Your task to perform on an android device: Open Youtube and go to "Your channel" Image 0: 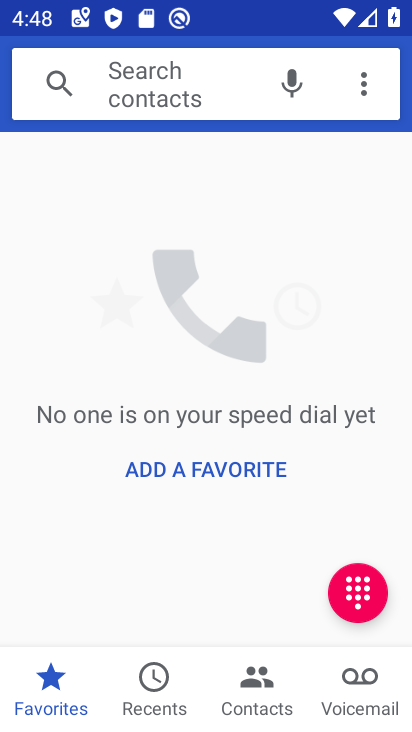
Step 0: press back button
Your task to perform on an android device: Open Youtube and go to "Your channel" Image 1: 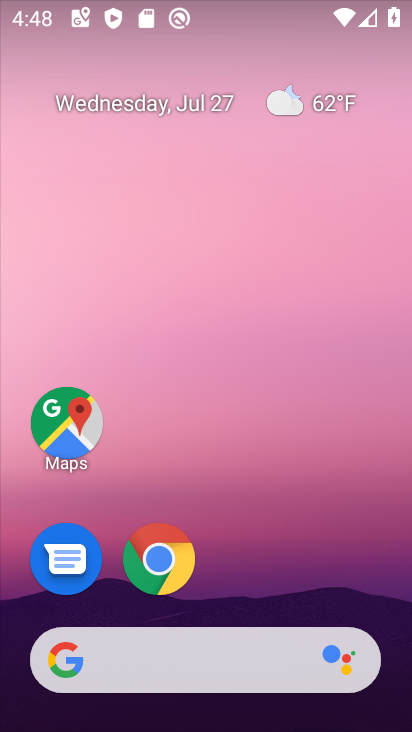
Step 1: drag from (228, 603) to (223, 23)
Your task to perform on an android device: Open Youtube and go to "Your channel" Image 2: 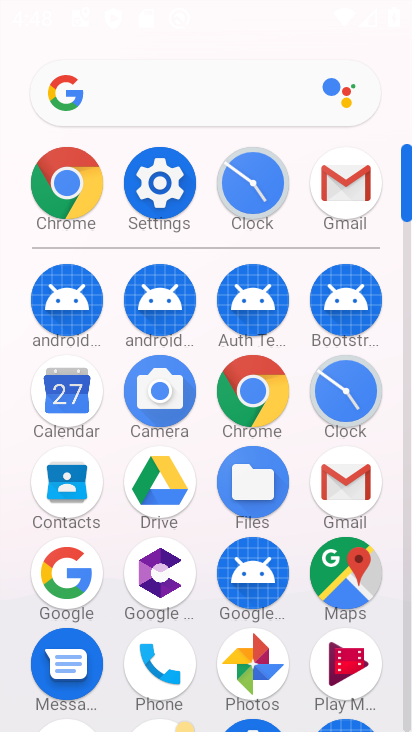
Step 2: drag from (160, 622) to (207, 90)
Your task to perform on an android device: Open Youtube and go to "Your channel" Image 3: 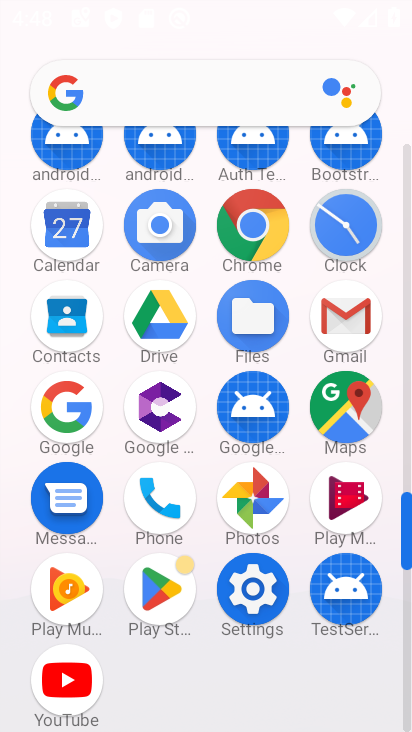
Step 3: click (54, 683)
Your task to perform on an android device: Open Youtube and go to "Your channel" Image 4: 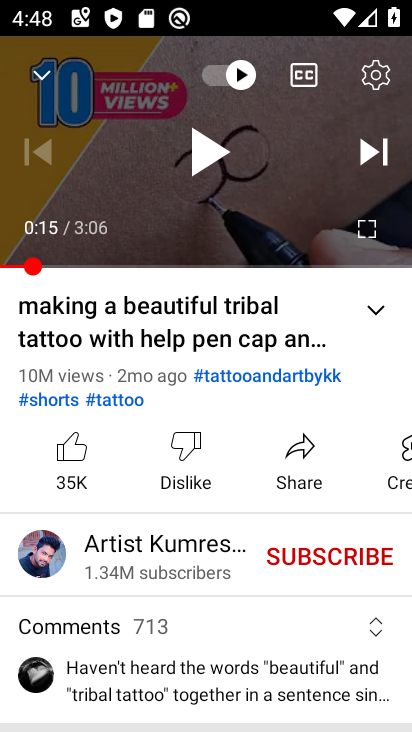
Step 4: click (37, 75)
Your task to perform on an android device: Open Youtube and go to "Your channel" Image 5: 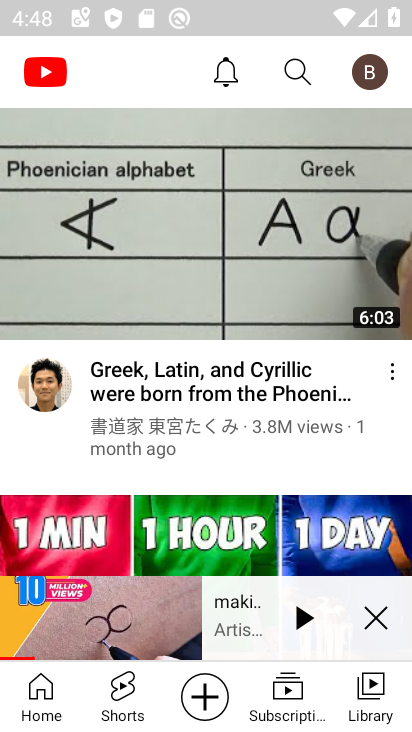
Step 5: click (366, 689)
Your task to perform on an android device: Open Youtube and go to "Your channel" Image 6: 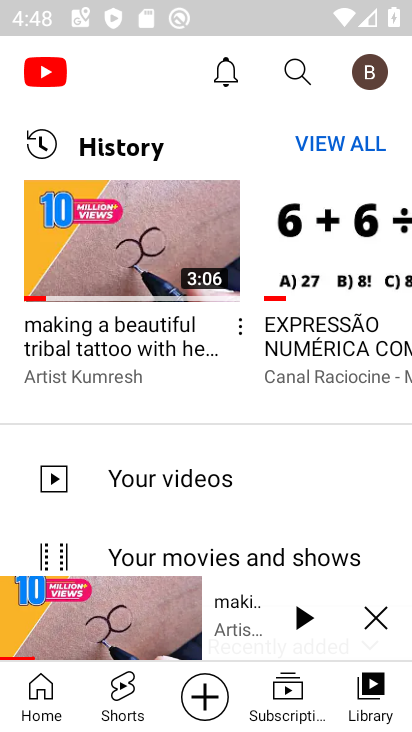
Step 6: click (367, 81)
Your task to perform on an android device: Open Youtube and go to "Your channel" Image 7: 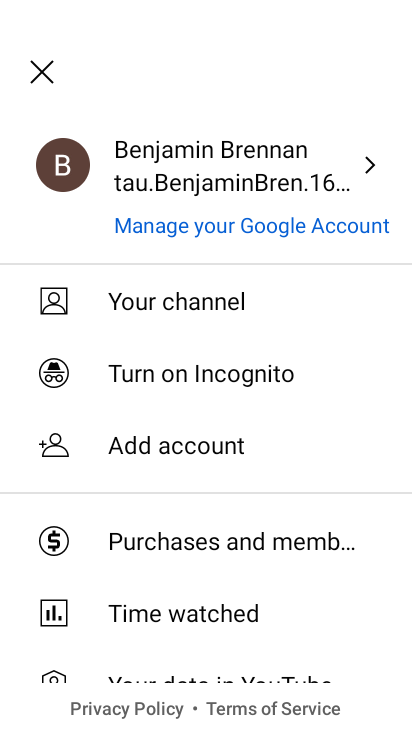
Step 7: click (156, 294)
Your task to perform on an android device: Open Youtube and go to "Your channel" Image 8: 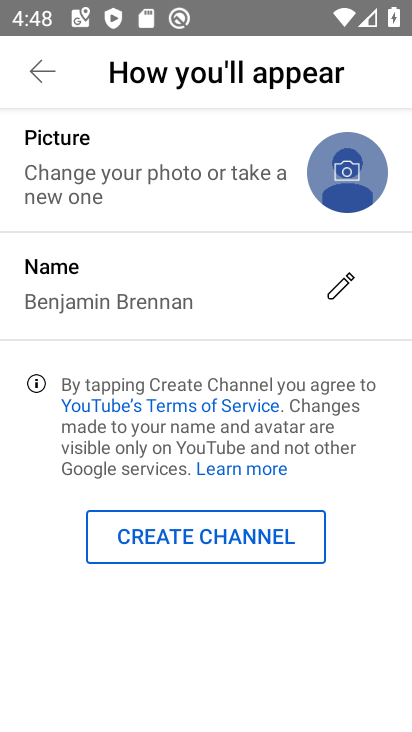
Step 8: task complete